Your task to perform on an android device: Open Google Chrome and open the bookmarks view Image 0: 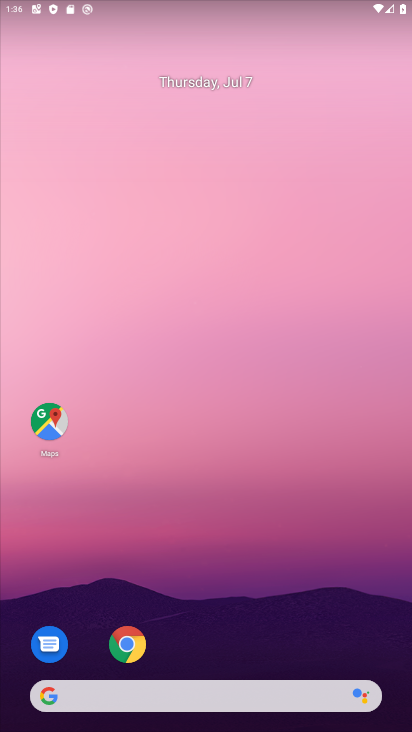
Step 0: click (118, 644)
Your task to perform on an android device: Open Google Chrome and open the bookmarks view Image 1: 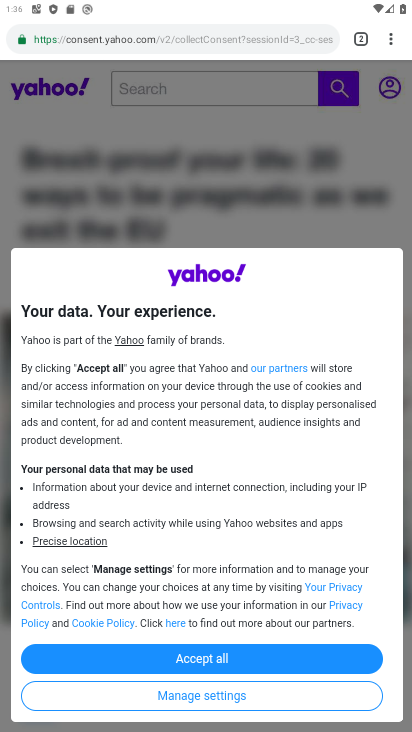
Step 1: drag from (394, 33) to (265, 147)
Your task to perform on an android device: Open Google Chrome and open the bookmarks view Image 2: 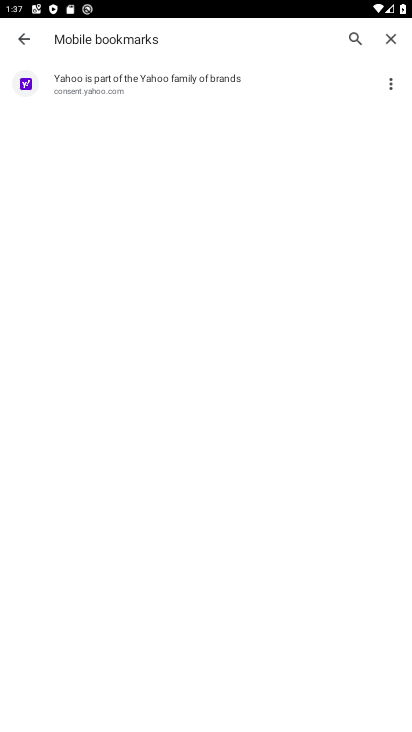
Step 2: click (208, 87)
Your task to perform on an android device: Open Google Chrome and open the bookmarks view Image 3: 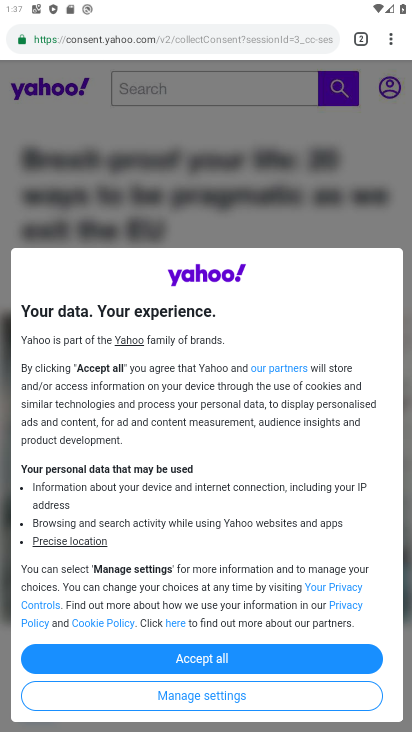
Step 3: click (212, 82)
Your task to perform on an android device: Open Google Chrome and open the bookmarks view Image 4: 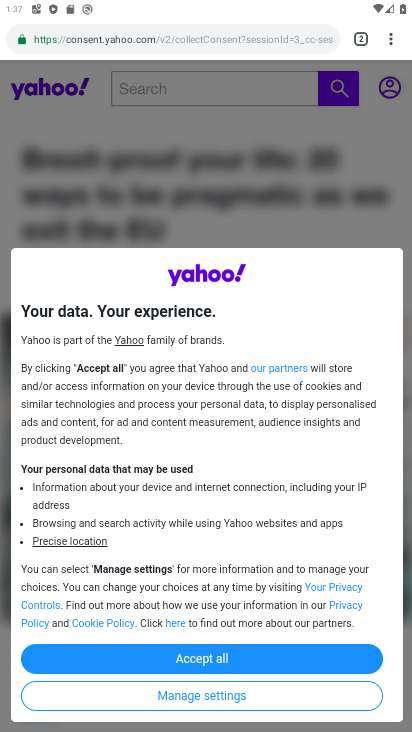
Step 4: task complete